Your task to perform on an android device: Clear the cart on ebay. Search for "logitech g502" on ebay, select the first entry, and add it to the cart. Image 0: 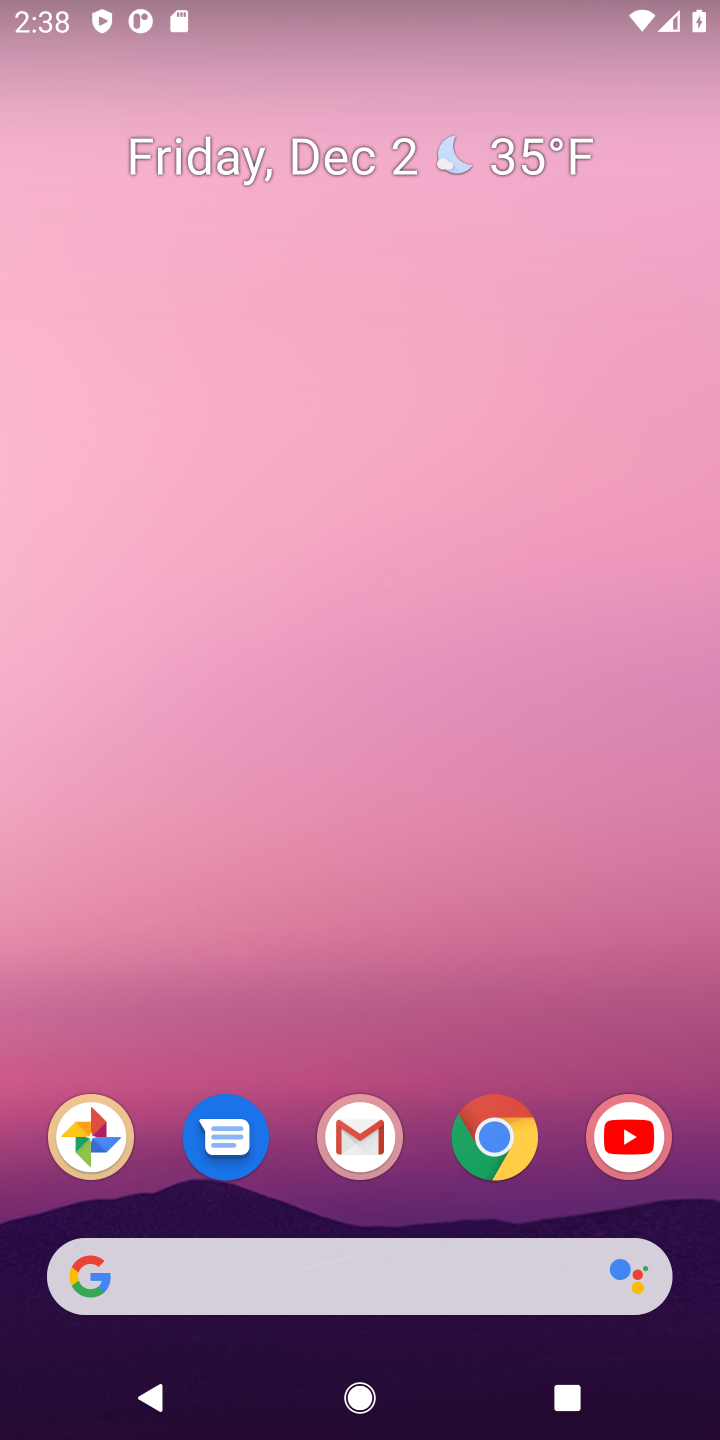
Step 0: press home button
Your task to perform on an android device: Clear the cart on ebay. Search for "logitech g502" on ebay, select the first entry, and add it to the cart. Image 1: 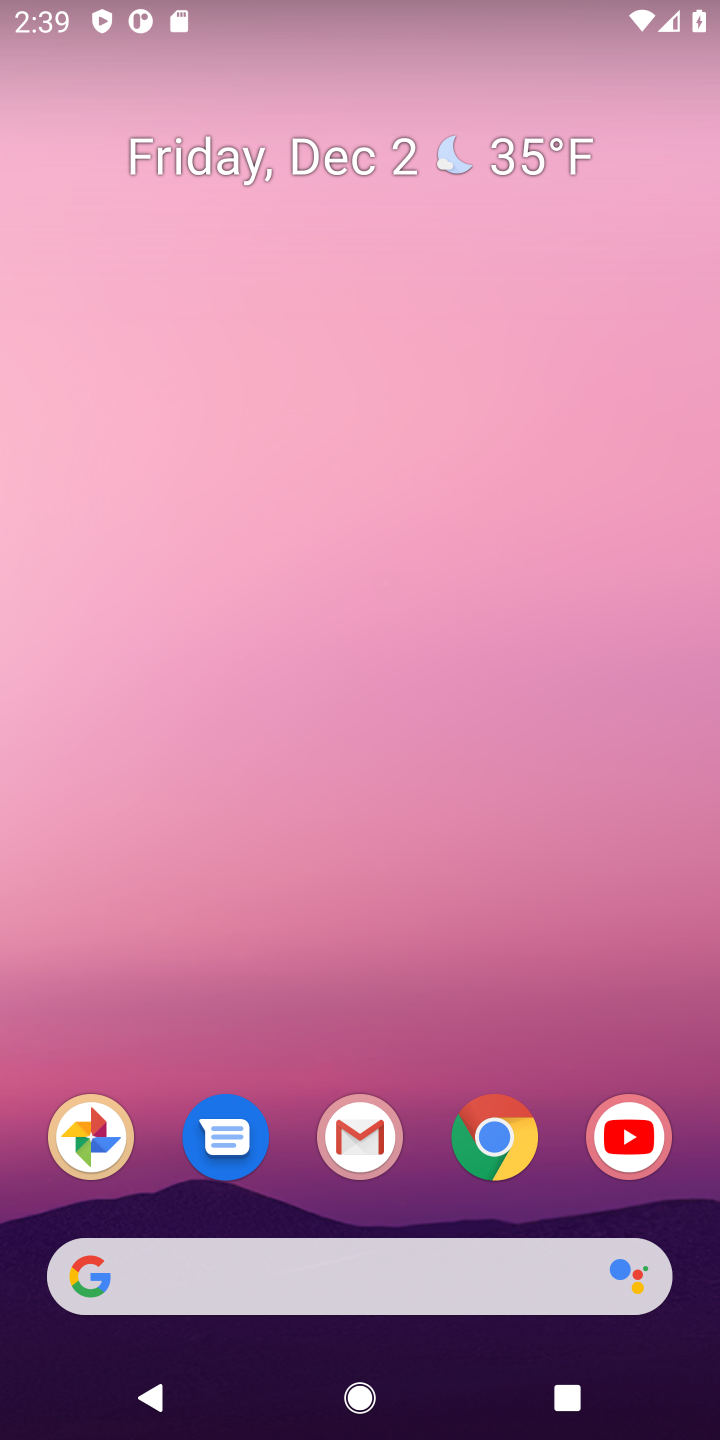
Step 1: drag from (313, 1276) to (359, 241)
Your task to perform on an android device: Clear the cart on ebay. Search for "logitech g502" on ebay, select the first entry, and add it to the cart. Image 2: 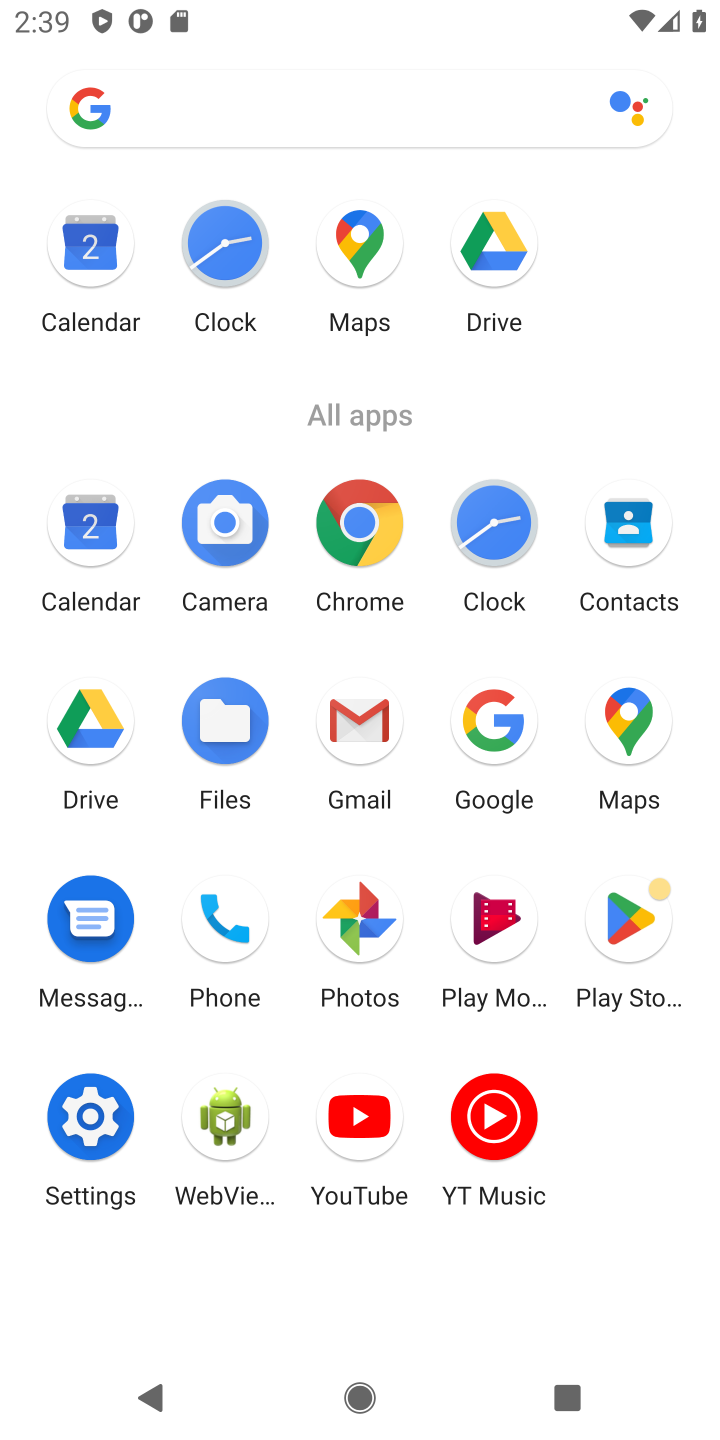
Step 2: click (498, 713)
Your task to perform on an android device: Clear the cart on ebay. Search for "logitech g502" on ebay, select the first entry, and add it to the cart. Image 3: 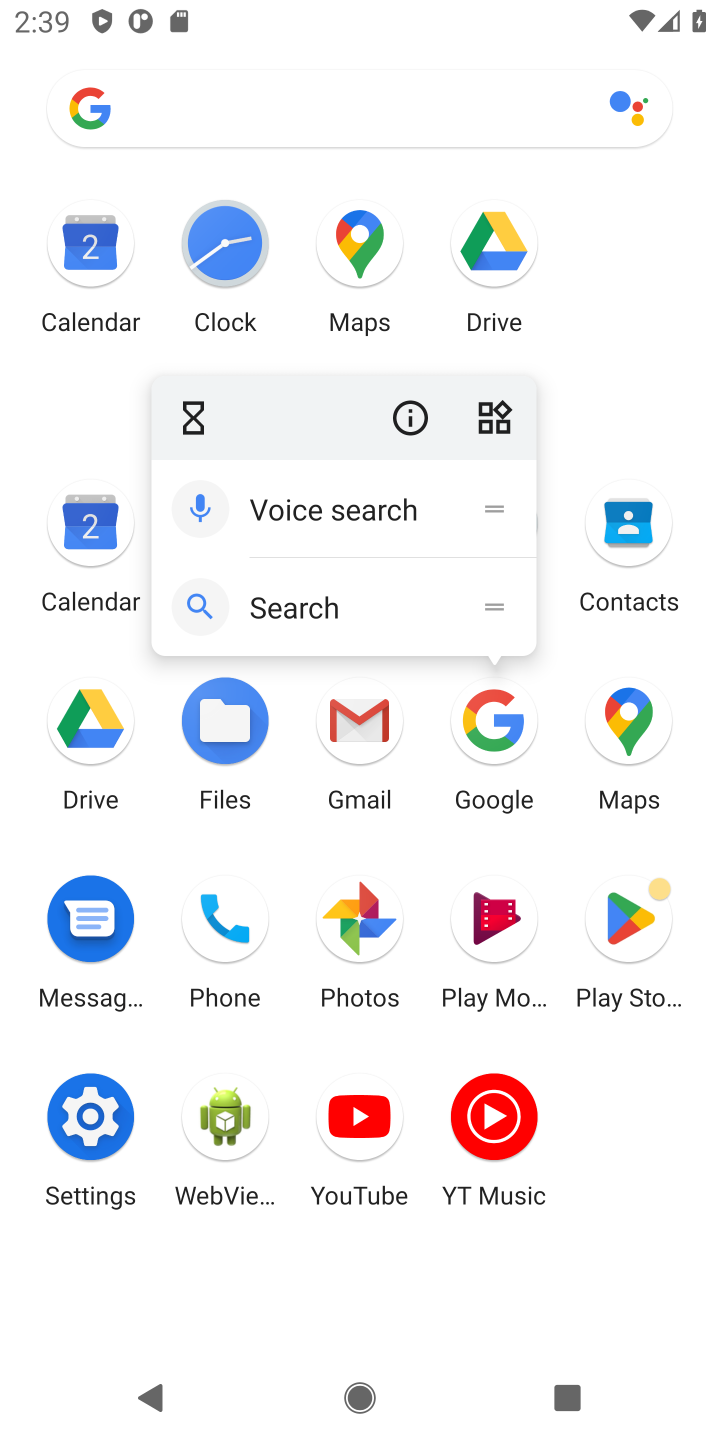
Step 3: click (476, 715)
Your task to perform on an android device: Clear the cart on ebay. Search for "logitech g502" on ebay, select the first entry, and add it to the cart. Image 4: 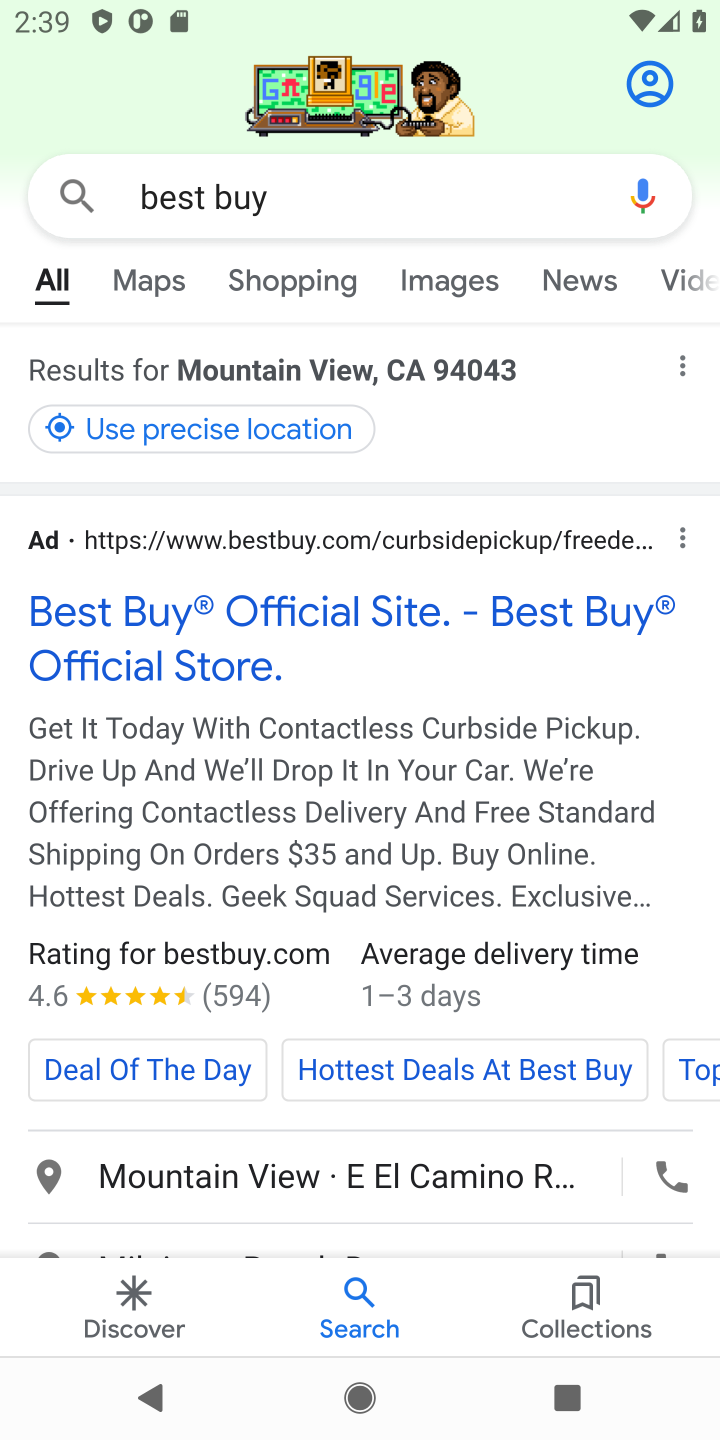
Step 4: click (286, 192)
Your task to perform on an android device: Clear the cart on ebay. Search for "logitech g502" on ebay, select the first entry, and add it to the cart. Image 5: 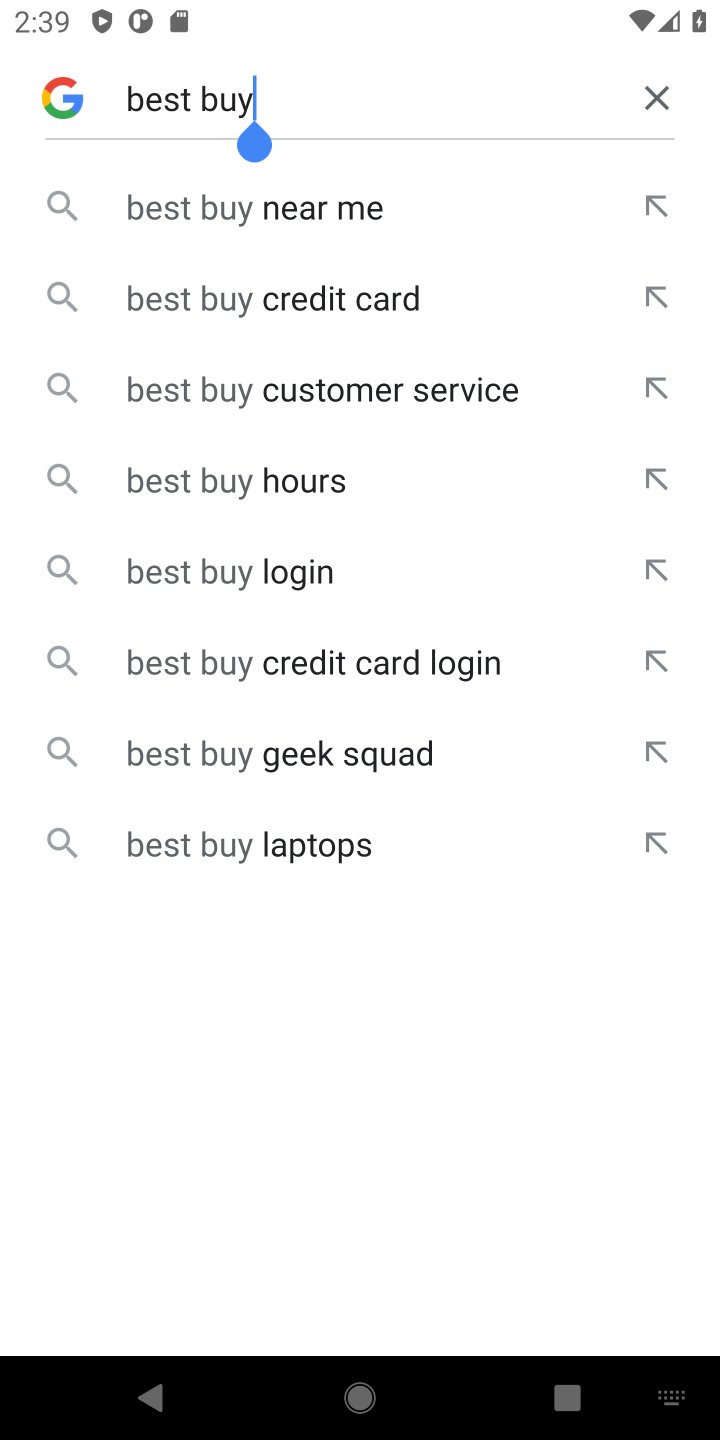
Step 5: click (656, 85)
Your task to perform on an android device: Clear the cart on ebay. Search for "logitech g502" on ebay, select the first entry, and add it to the cart. Image 6: 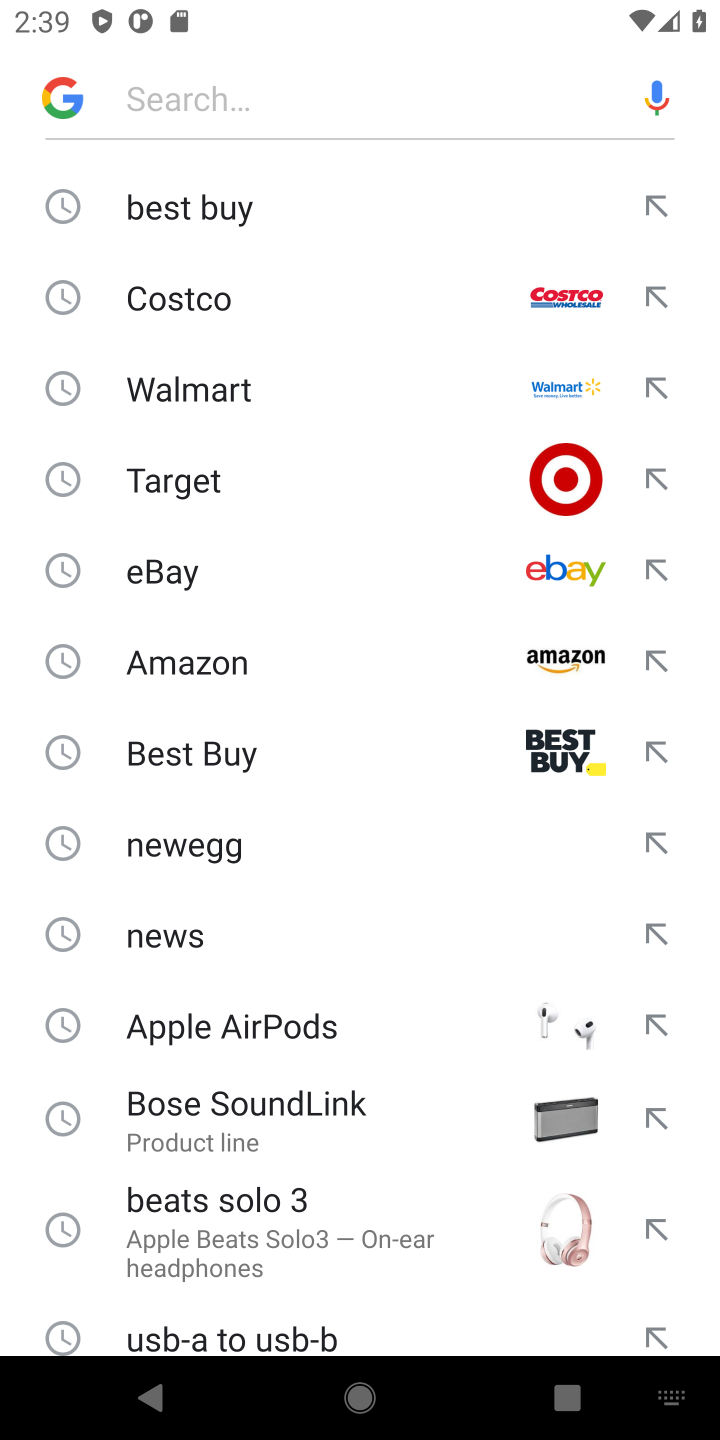
Step 6: click (202, 579)
Your task to perform on an android device: Clear the cart on ebay. Search for "logitech g502" on ebay, select the first entry, and add it to the cart. Image 7: 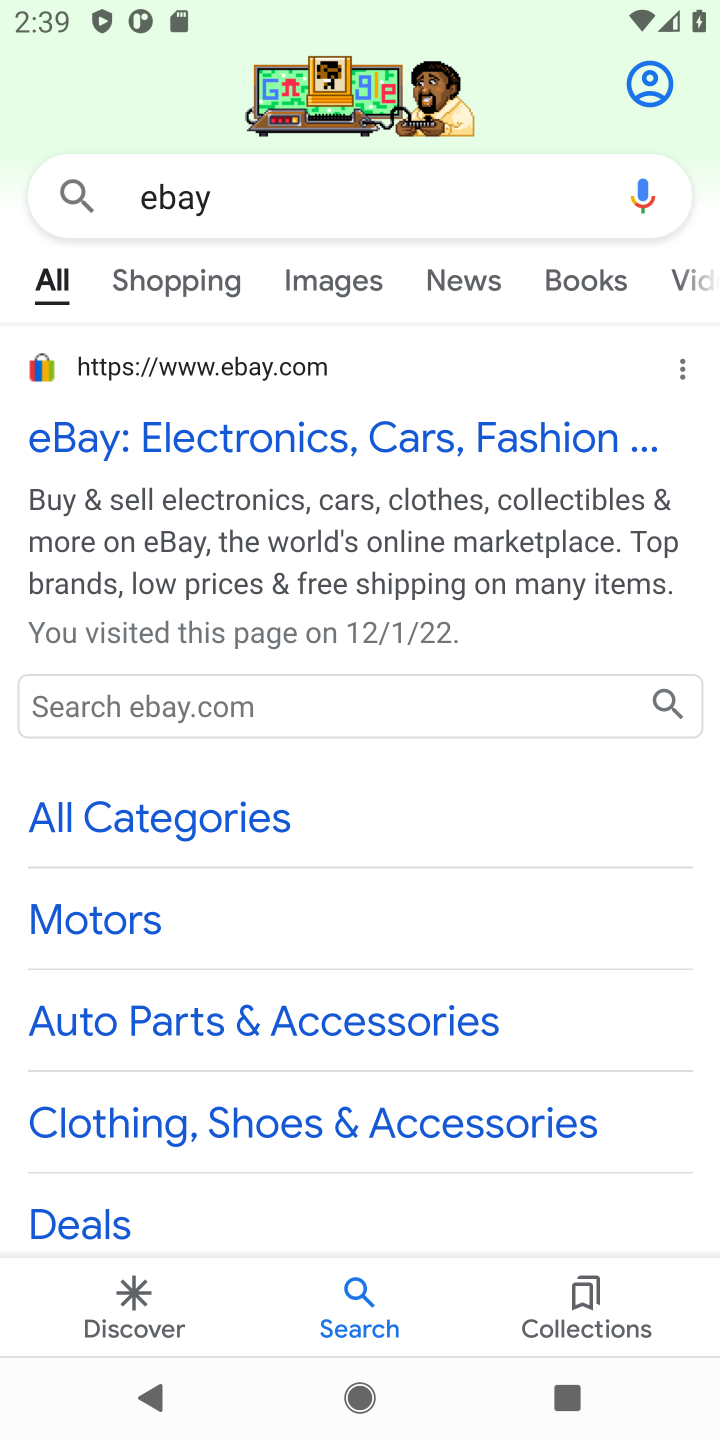
Step 7: click (228, 446)
Your task to perform on an android device: Clear the cart on ebay. Search for "logitech g502" on ebay, select the first entry, and add it to the cart. Image 8: 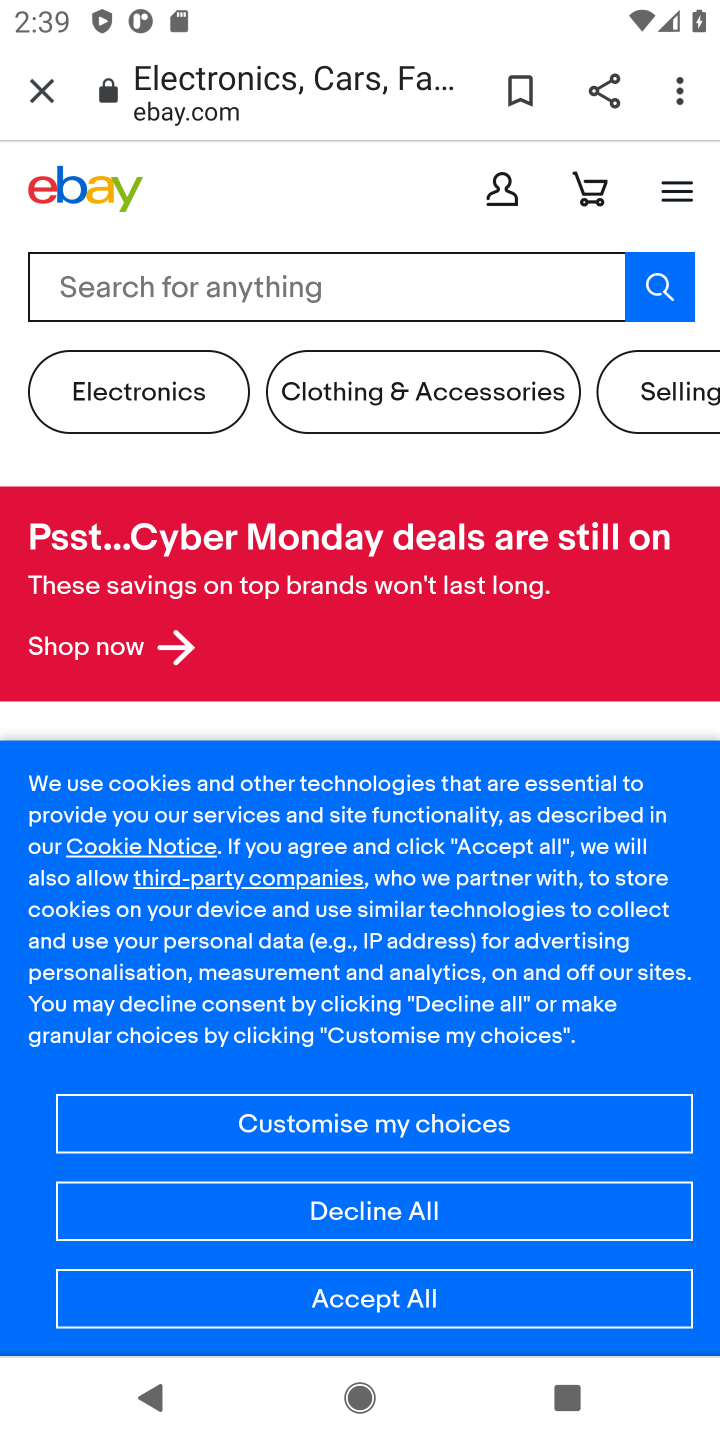
Step 8: click (89, 311)
Your task to perform on an android device: Clear the cart on ebay. Search for "logitech g502" on ebay, select the first entry, and add it to the cart. Image 9: 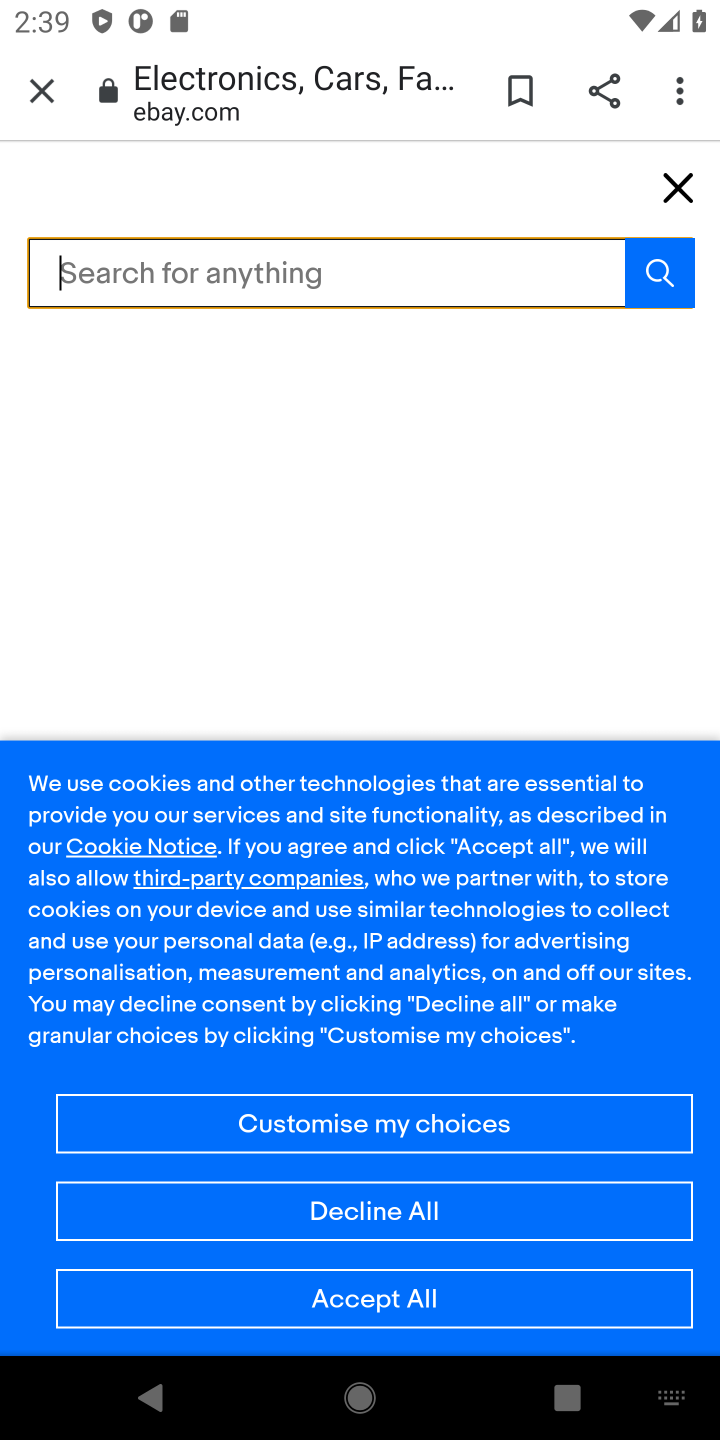
Step 9: type "logitech g502"
Your task to perform on an android device: Clear the cart on ebay. Search for "logitech g502" on ebay, select the first entry, and add it to the cart. Image 10: 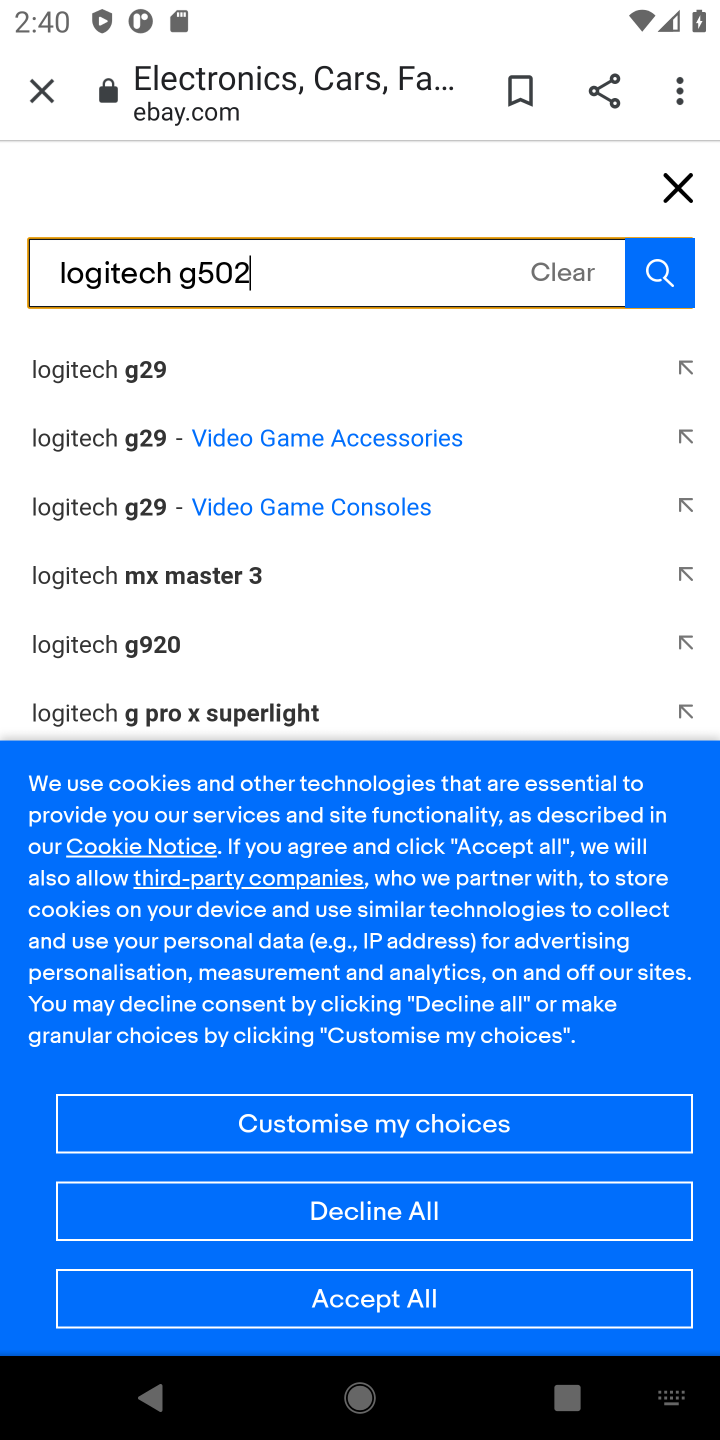
Step 10: click (79, 374)
Your task to perform on an android device: Clear the cart on ebay. Search for "logitech g502" on ebay, select the first entry, and add it to the cart. Image 11: 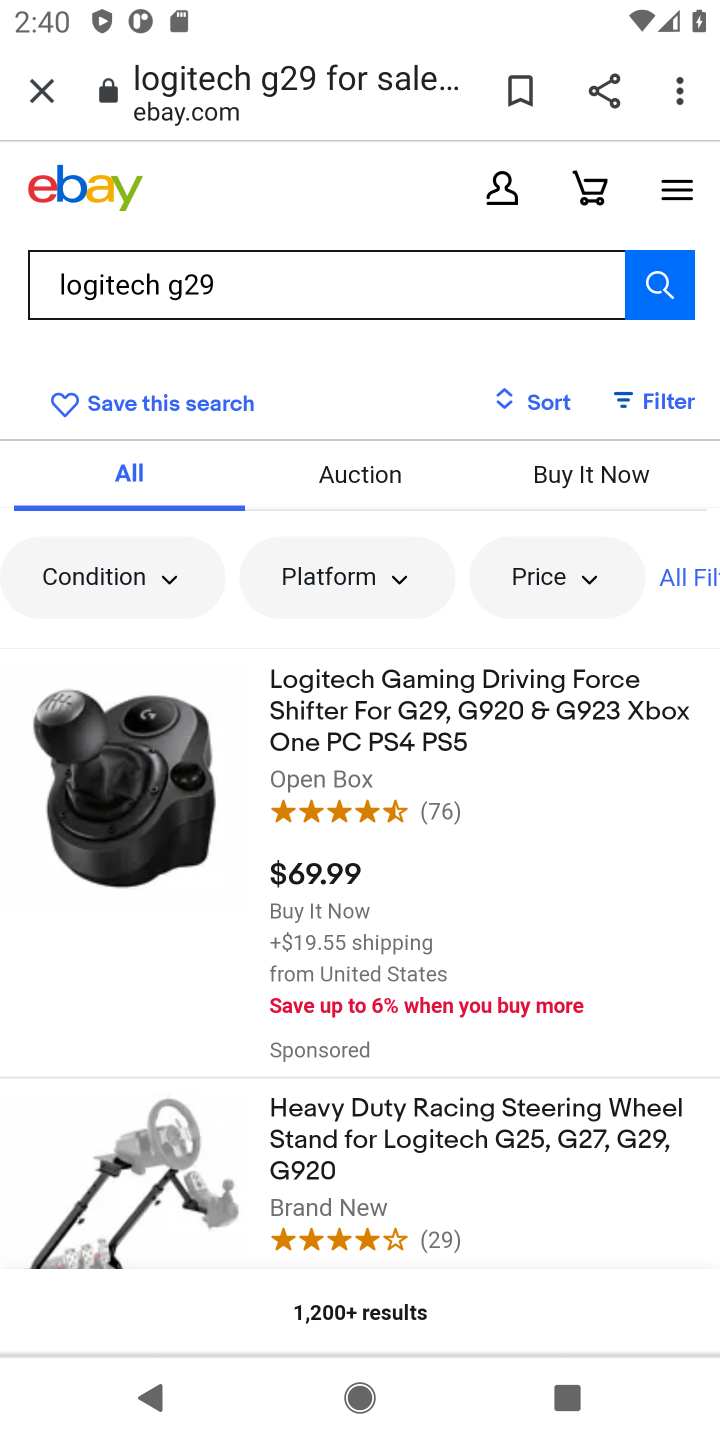
Step 11: click (317, 742)
Your task to perform on an android device: Clear the cart on ebay. Search for "logitech g502" on ebay, select the first entry, and add it to the cart. Image 12: 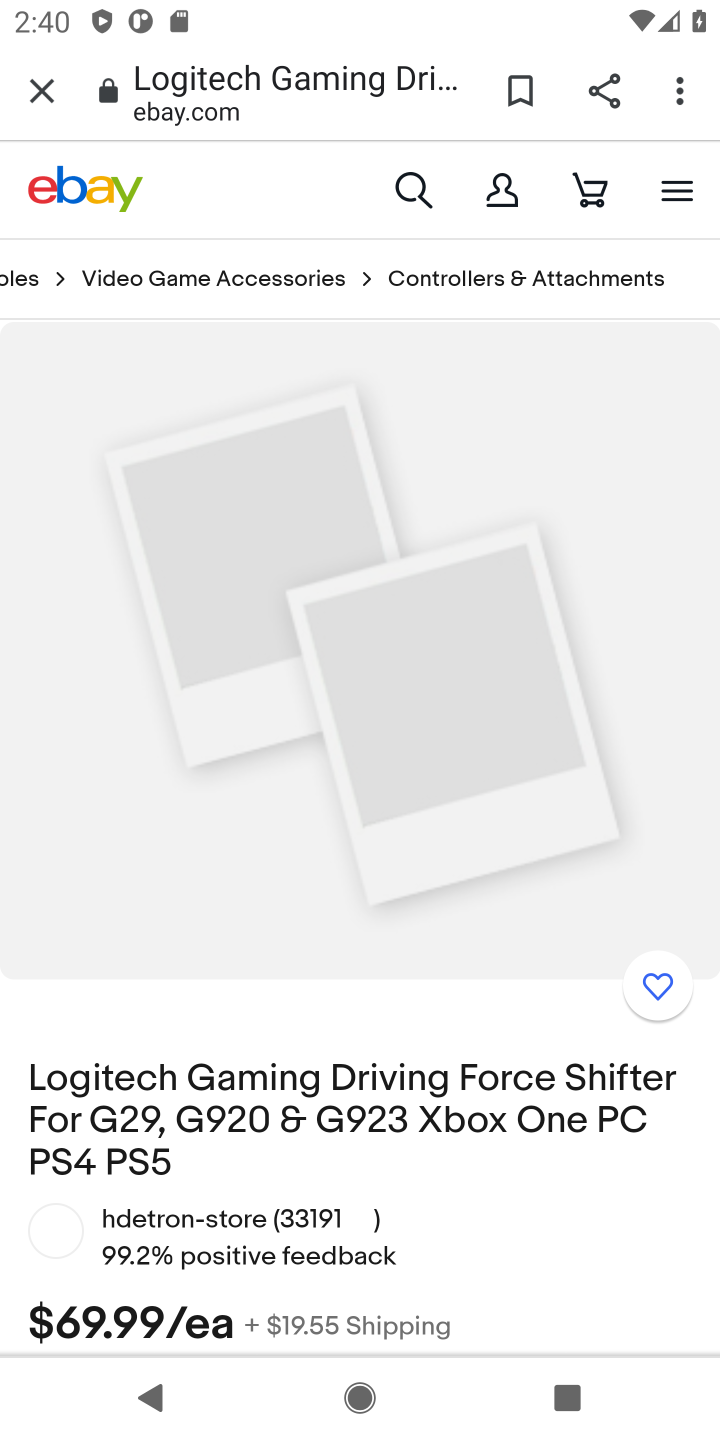
Step 12: drag from (305, 1158) to (155, 490)
Your task to perform on an android device: Clear the cart on ebay. Search for "logitech g502" on ebay, select the first entry, and add it to the cart. Image 13: 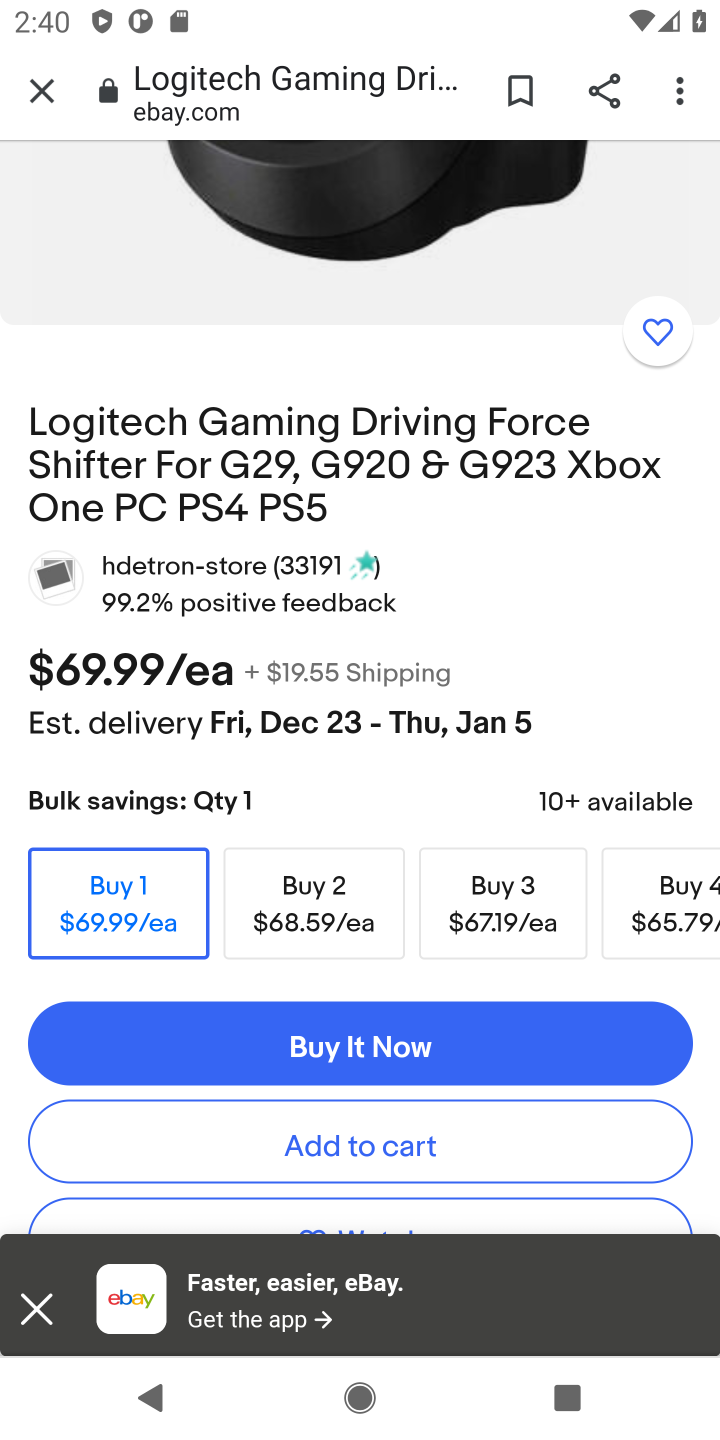
Step 13: click (357, 1143)
Your task to perform on an android device: Clear the cart on ebay. Search for "logitech g502" on ebay, select the first entry, and add it to the cart. Image 14: 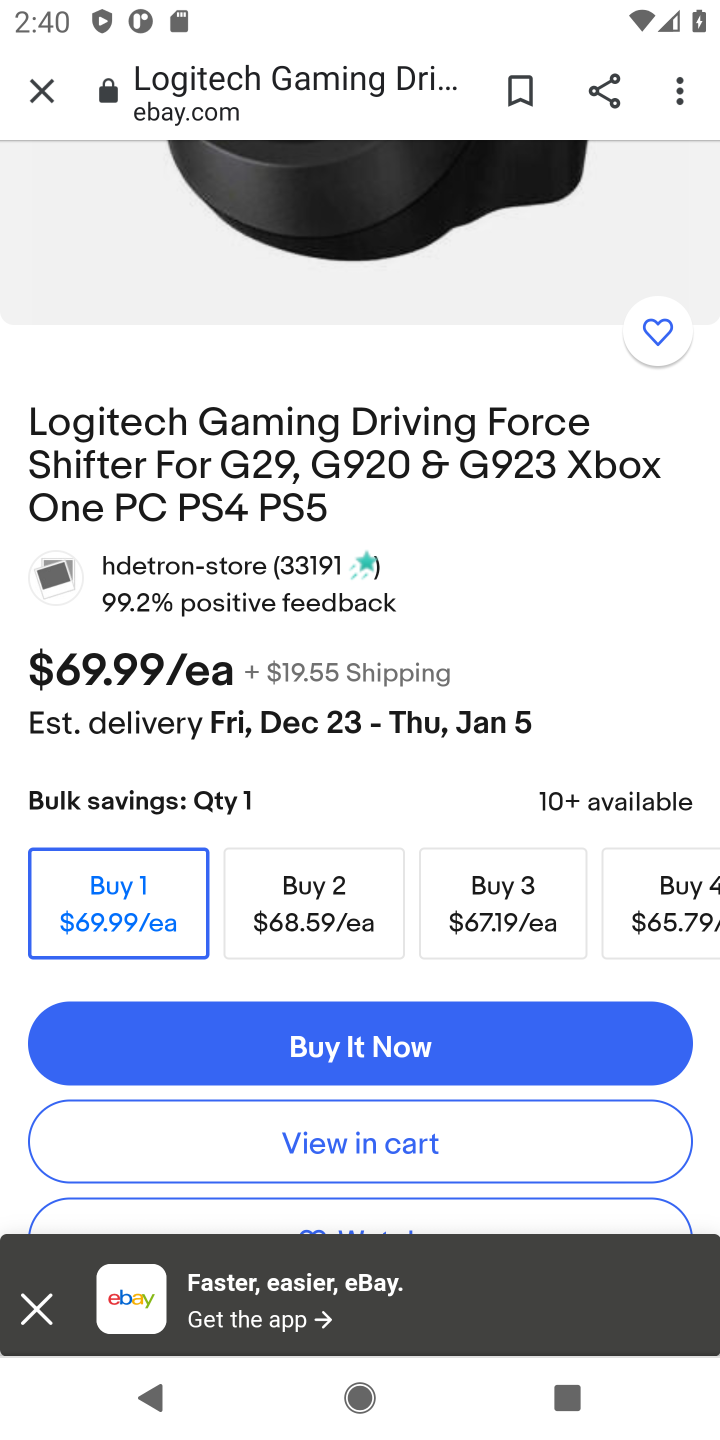
Step 14: task complete